Your task to perform on an android device: snooze an email in the gmail app Image 0: 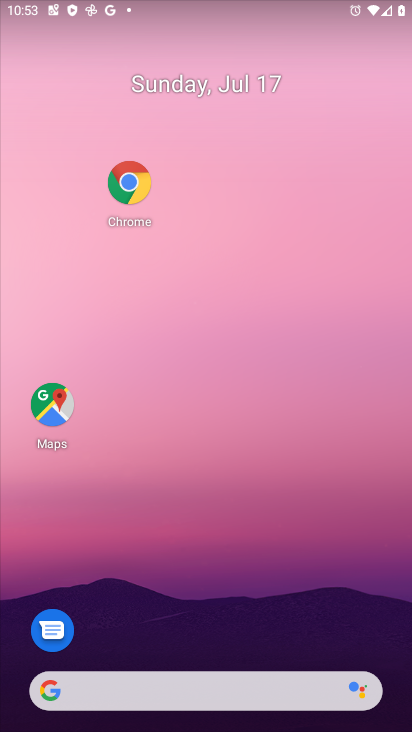
Step 0: drag from (216, 478) to (257, 56)
Your task to perform on an android device: snooze an email in the gmail app Image 1: 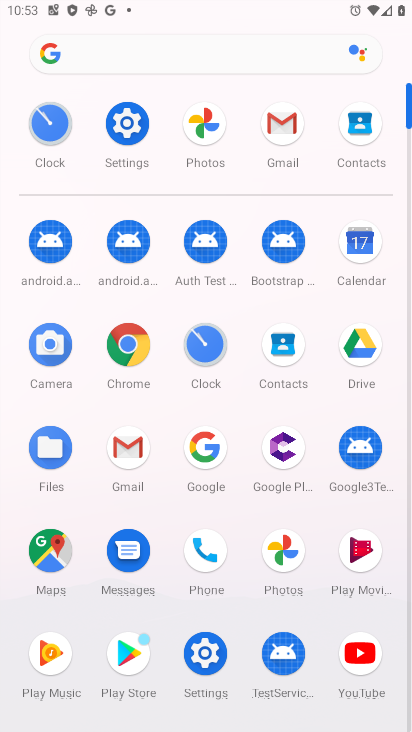
Step 1: click (289, 149)
Your task to perform on an android device: snooze an email in the gmail app Image 2: 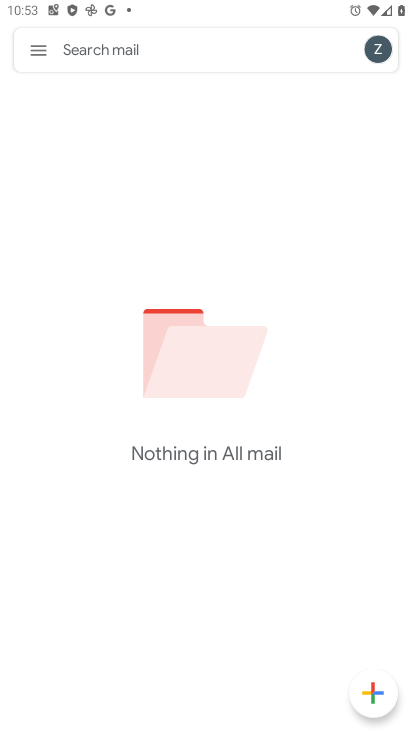
Step 2: task complete